Your task to perform on an android device: open app "WhatsApp Messenger" (install if not already installed) and enter user name: "cartons@outlook.com" and password: "approximated" Image 0: 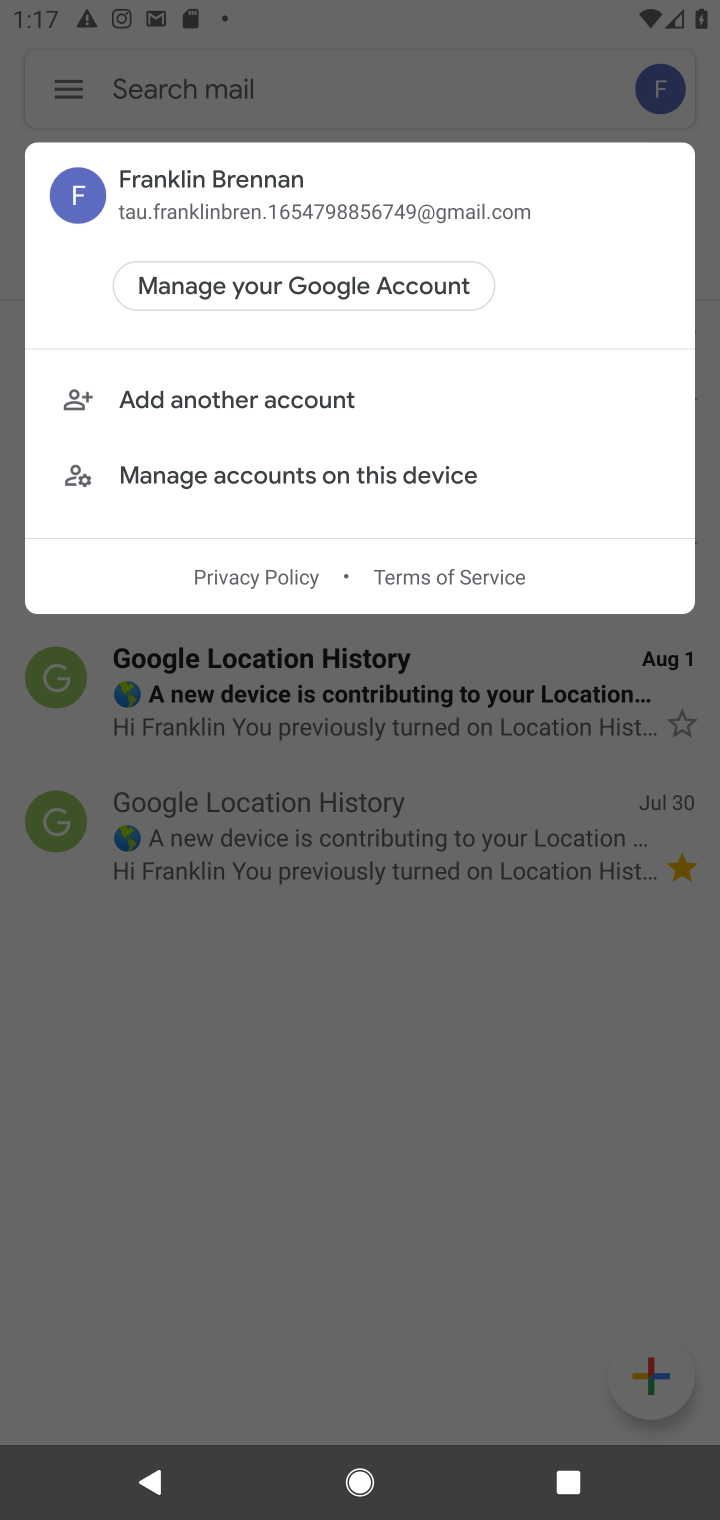
Step 0: press home button
Your task to perform on an android device: open app "WhatsApp Messenger" (install if not already installed) and enter user name: "cartons@outlook.com" and password: "approximated" Image 1: 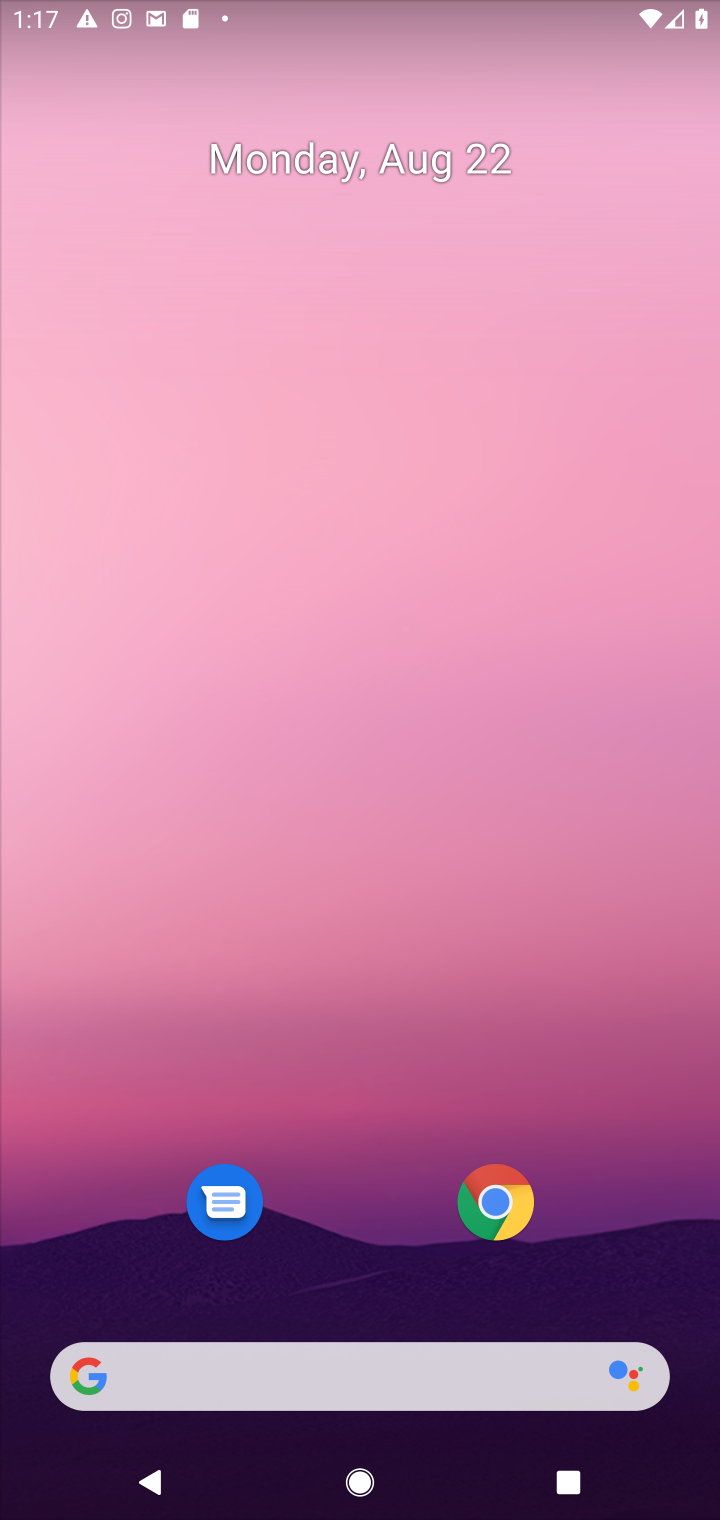
Step 1: drag from (356, 1291) to (199, 118)
Your task to perform on an android device: open app "WhatsApp Messenger" (install if not already installed) and enter user name: "cartons@outlook.com" and password: "approximated" Image 2: 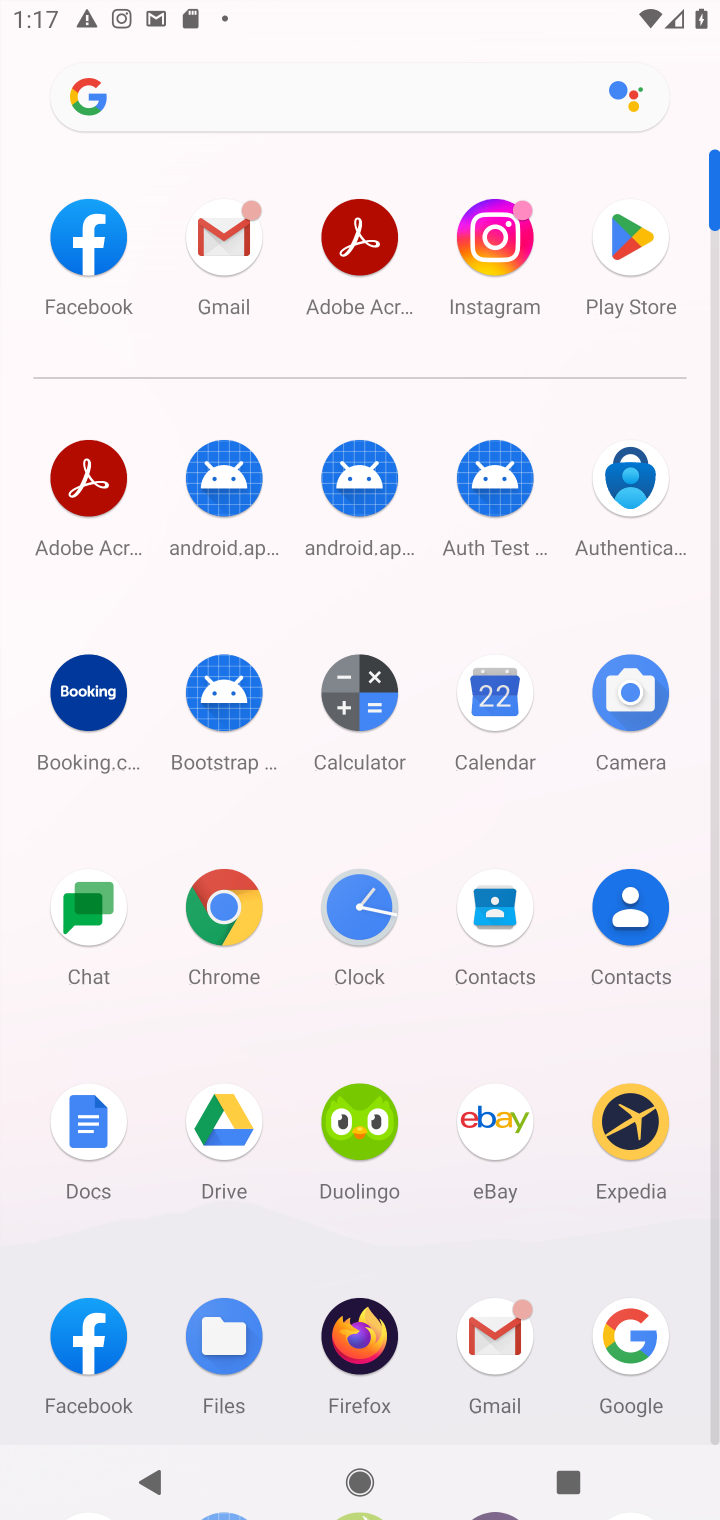
Step 2: click (623, 236)
Your task to perform on an android device: open app "WhatsApp Messenger" (install if not already installed) and enter user name: "cartons@outlook.com" and password: "approximated" Image 3: 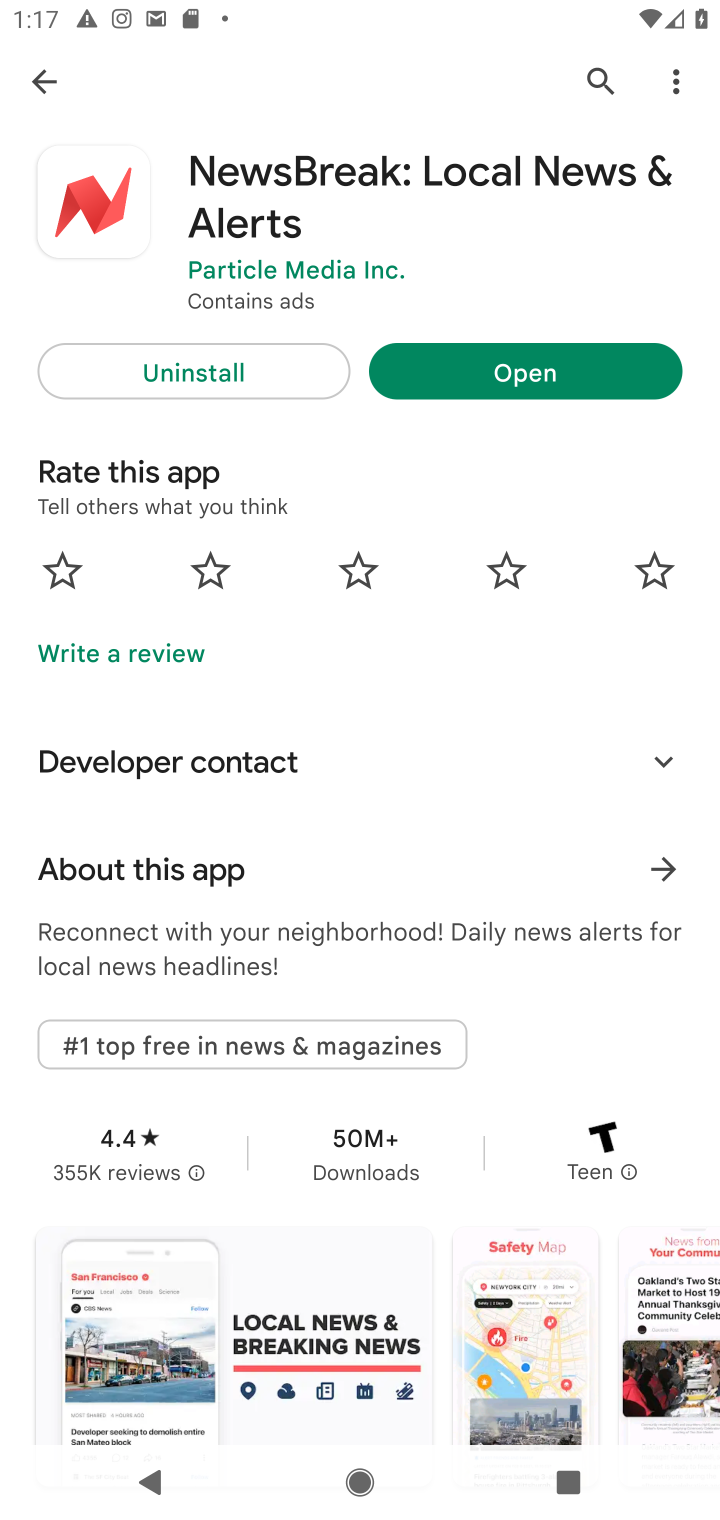
Step 3: click (591, 68)
Your task to perform on an android device: open app "WhatsApp Messenger" (install if not already installed) and enter user name: "cartons@outlook.com" and password: "approximated" Image 4: 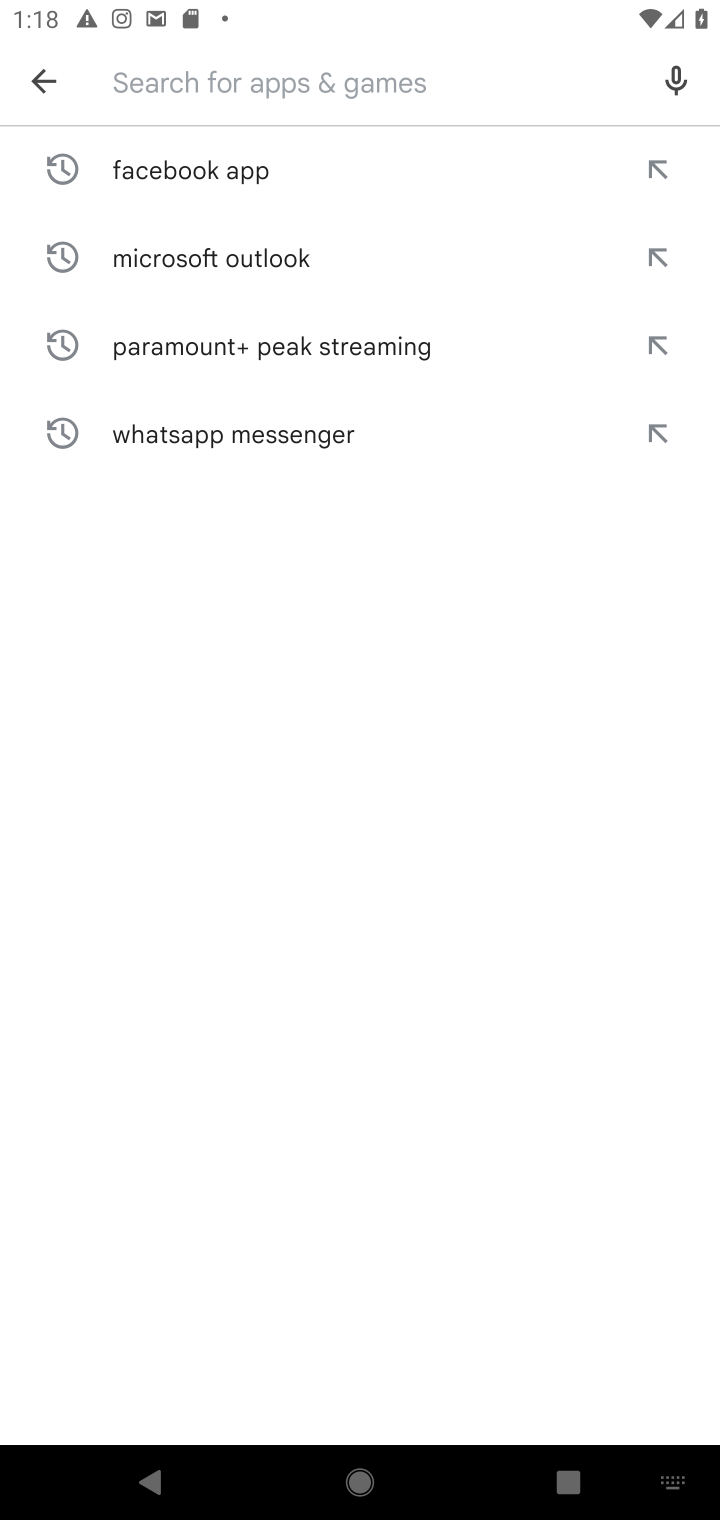
Step 4: type "WhatsApp Messenger"
Your task to perform on an android device: open app "WhatsApp Messenger" (install if not already installed) and enter user name: "cartons@outlook.com" and password: "approximated" Image 5: 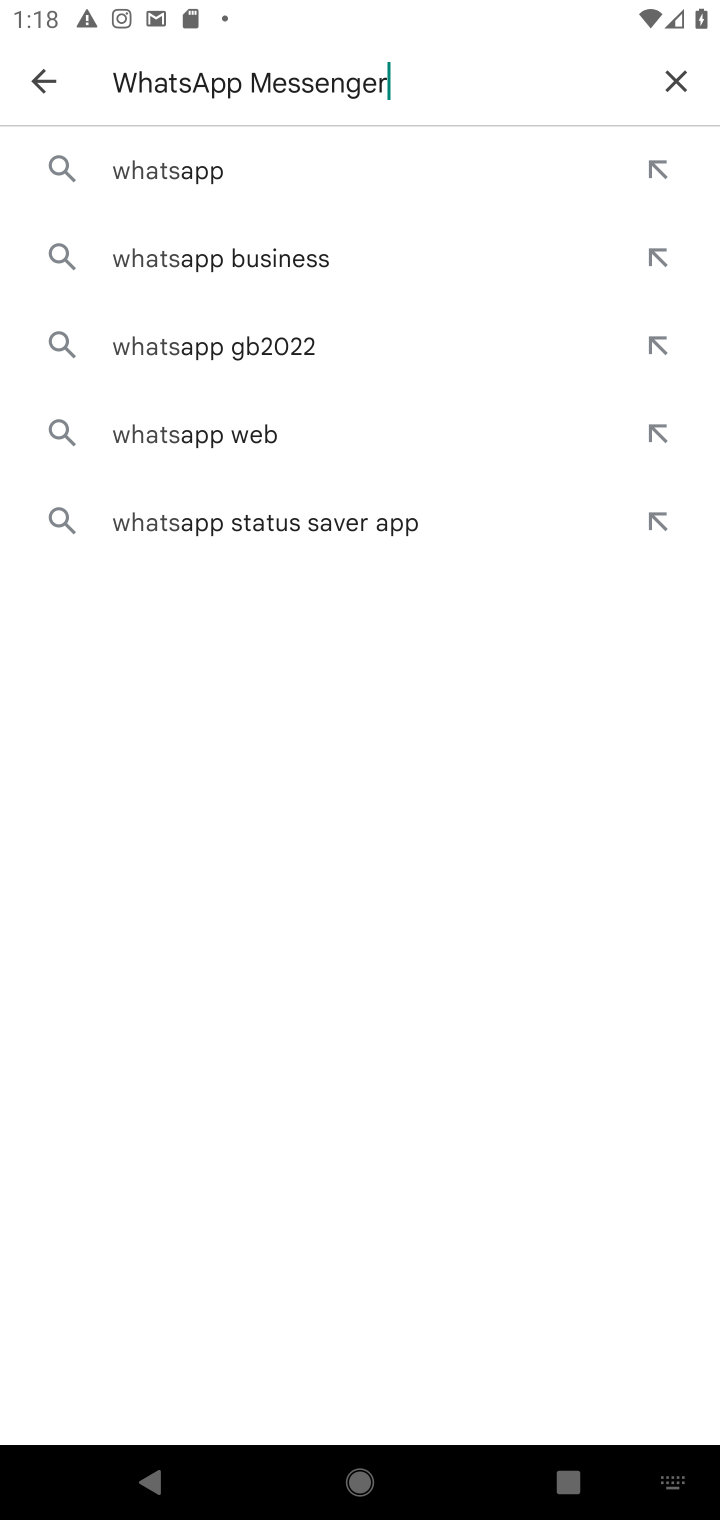
Step 5: type ""
Your task to perform on an android device: open app "WhatsApp Messenger" (install if not already installed) and enter user name: "cartons@outlook.com" and password: "approximated" Image 6: 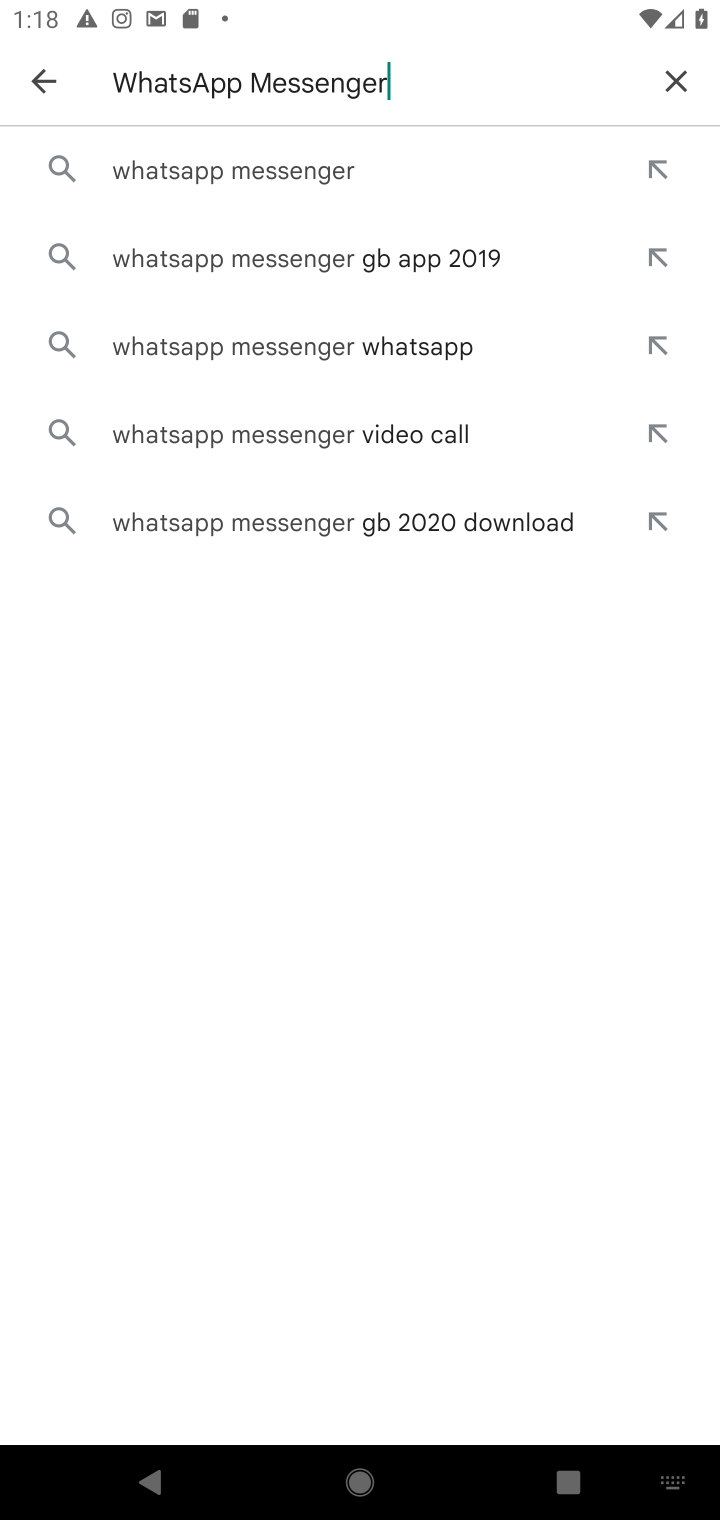
Step 6: click (232, 172)
Your task to perform on an android device: open app "WhatsApp Messenger" (install if not already installed) and enter user name: "cartons@outlook.com" and password: "approximated" Image 7: 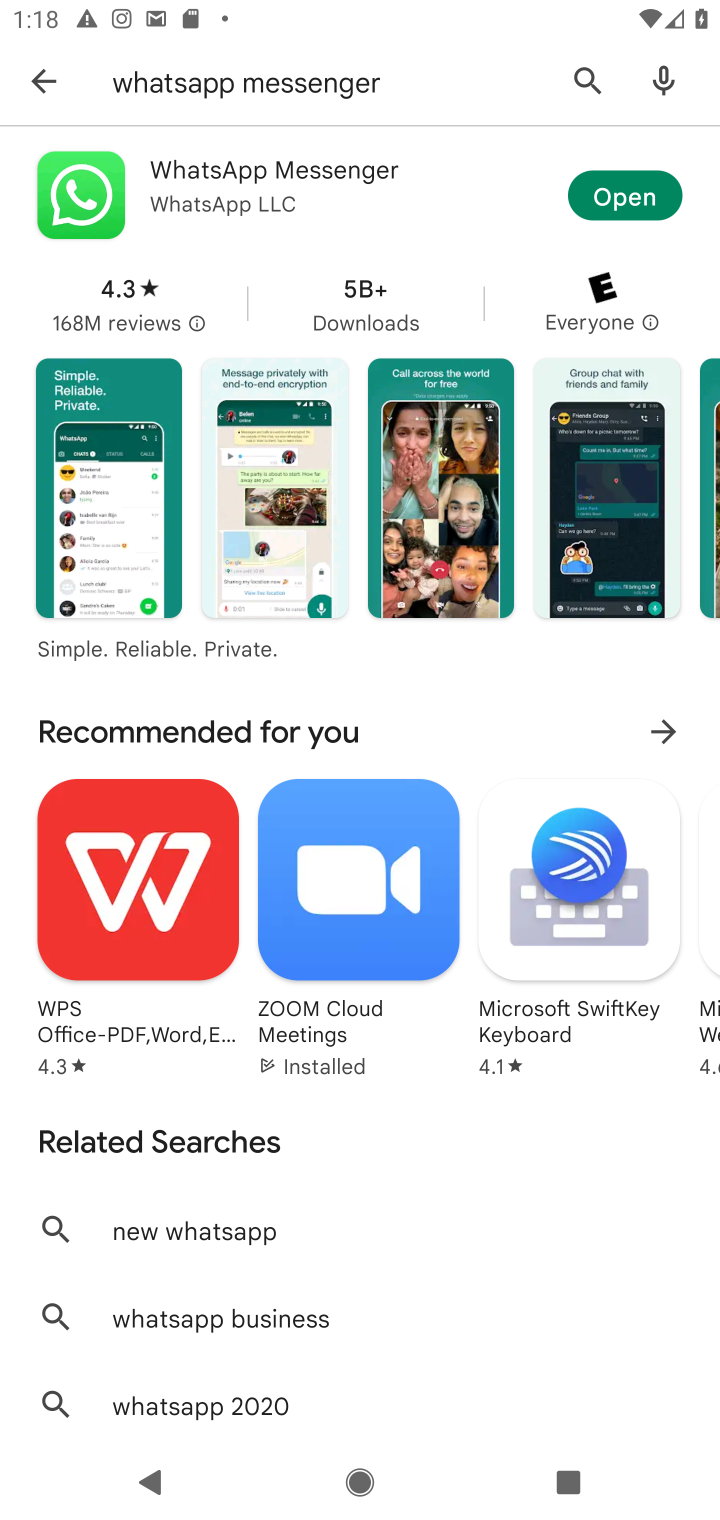
Step 7: click (619, 196)
Your task to perform on an android device: open app "WhatsApp Messenger" (install if not already installed) and enter user name: "cartons@outlook.com" and password: "approximated" Image 8: 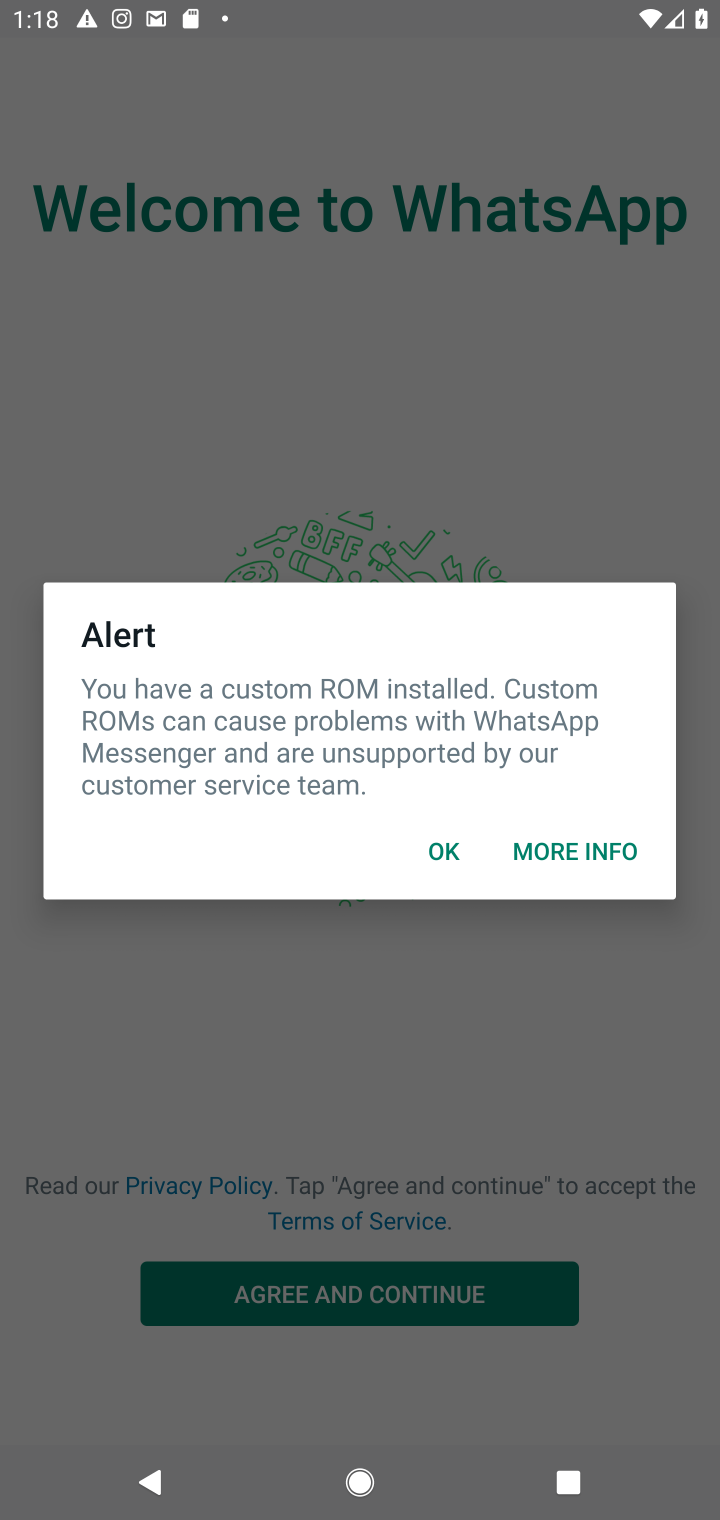
Step 8: click (437, 852)
Your task to perform on an android device: open app "WhatsApp Messenger" (install if not already installed) and enter user name: "cartons@outlook.com" and password: "approximated" Image 9: 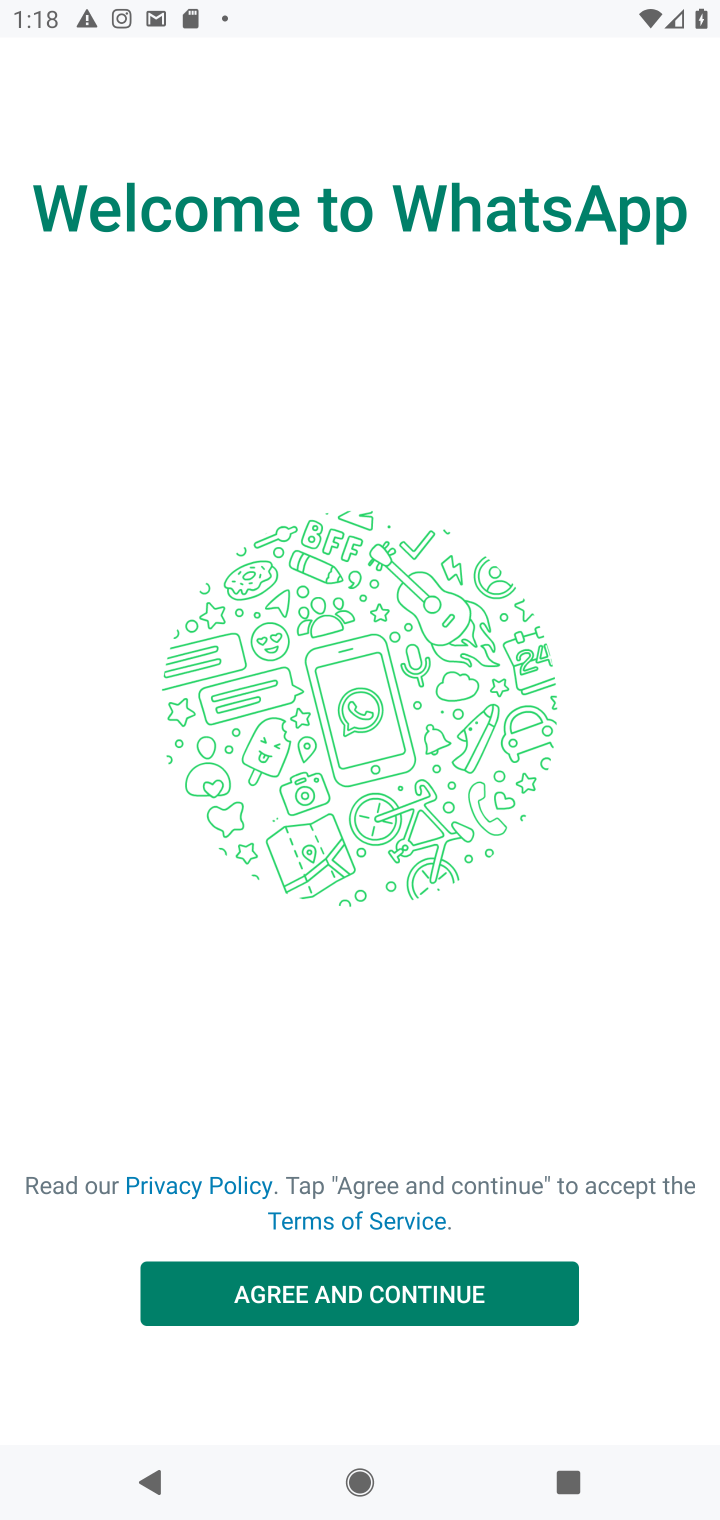
Step 9: task complete